Your task to perform on an android device: change keyboard looks Image 0: 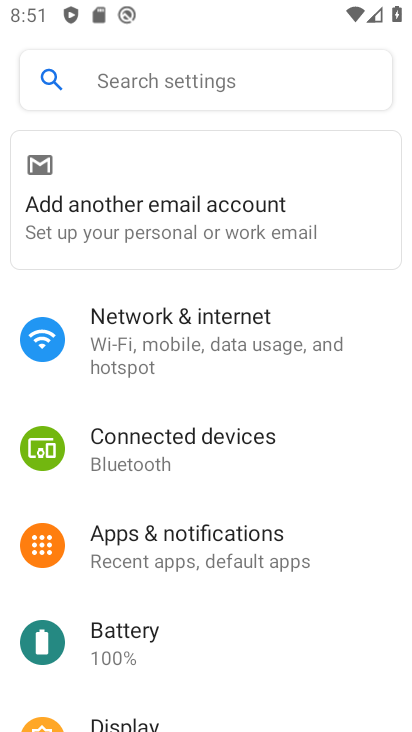
Step 0: drag from (160, 299) to (149, 261)
Your task to perform on an android device: change keyboard looks Image 1: 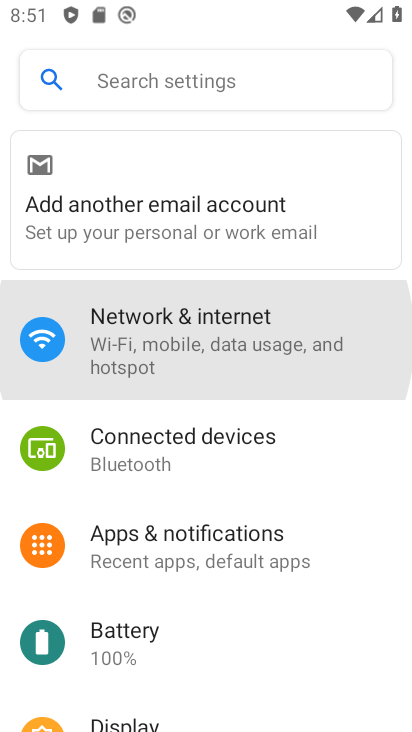
Step 1: drag from (198, 446) to (192, 319)
Your task to perform on an android device: change keyboard looks Image 2: 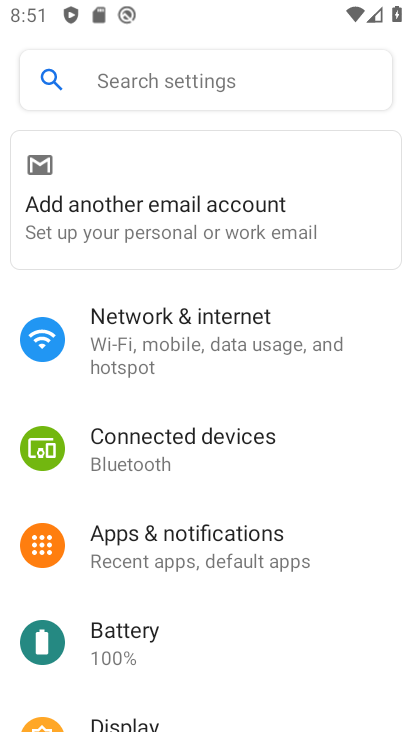
Step 2: click (163, 374)
Your task to perform on an android device: change keyboard looks Image 3: 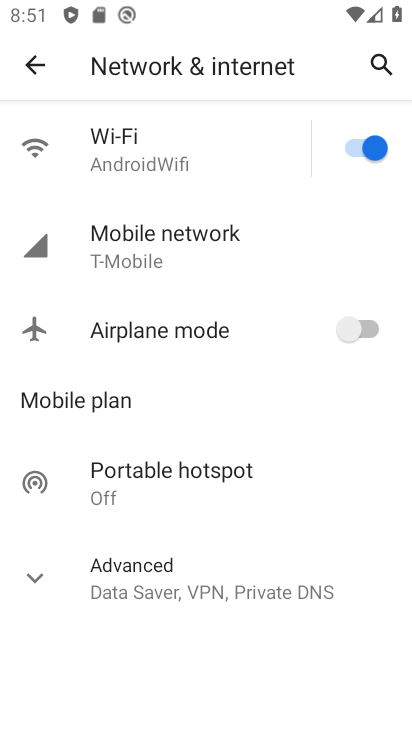
Step 3: click (30, 68)
Your task to perform on an android device: change keyboard looks Image 4: 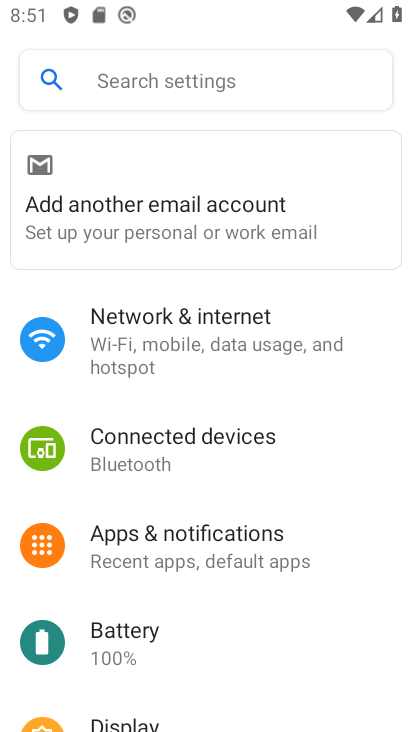
Step 4: drag from (183, 445) to (171, 273)
Your task to perform on an android device: change keyboard looks Image 5: 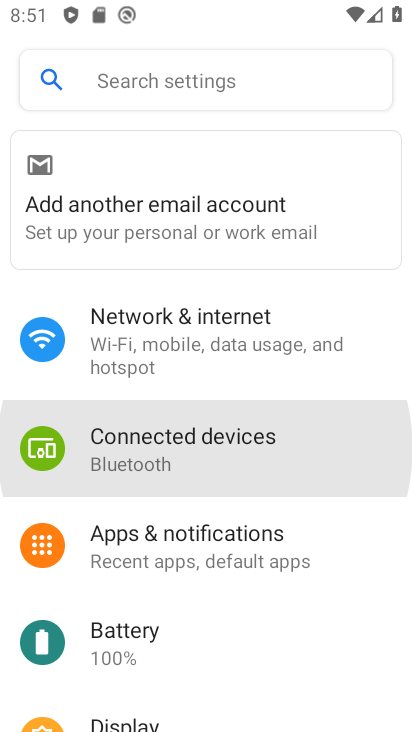
Step 5: drag from (270, 529) to (240, 239)
Your task to perform on an android device: change keyboard looks Image 6: 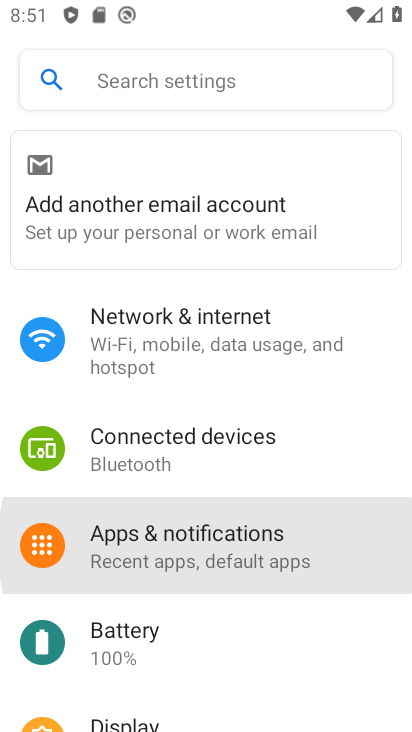
Step 6: drag from (284, 615) to (220, 301)
Your task to perform on an android device: change keyboard looks Image 7: 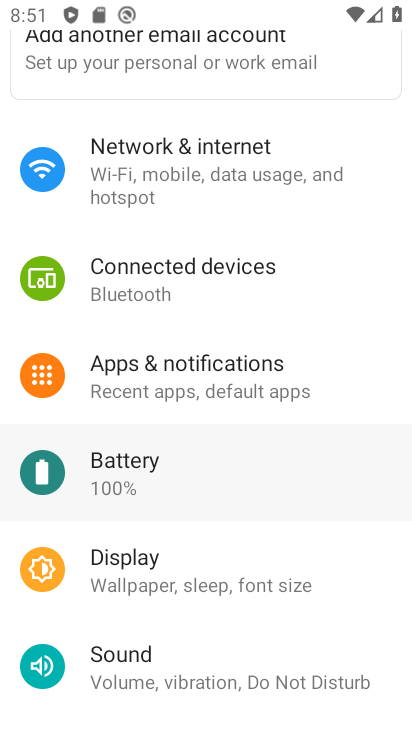
Step 7: drag from (241, 538) to (211, 229)
Your task to perform on an android device: change keyboard looks Image 8: 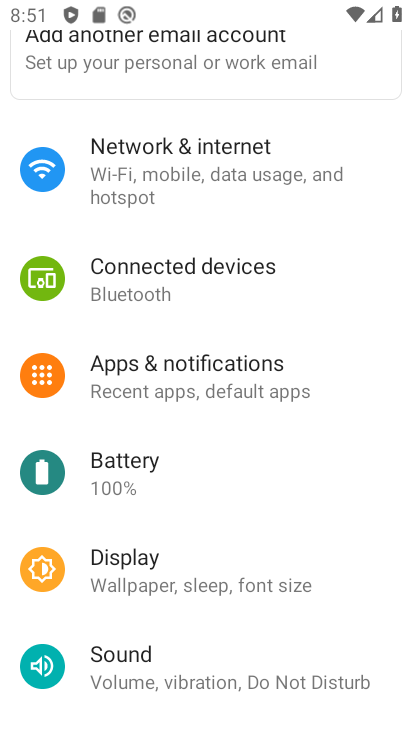
Step 8: drag from (251, 541) to (234, 237)
Your task to perform on an android device: change keyboard looks Image 9: 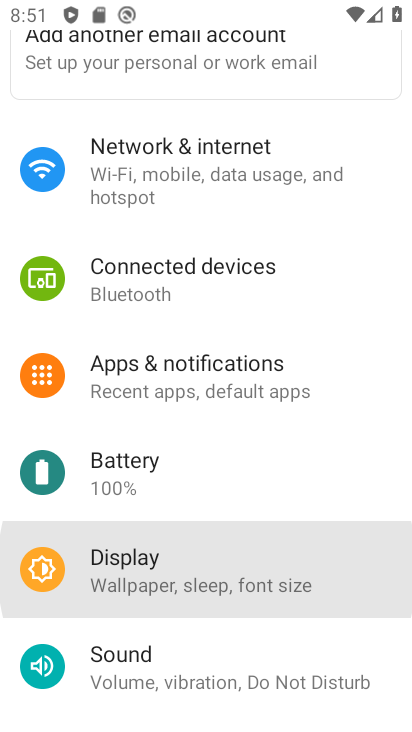
Step 9: drag from (174, 527) to (169, 138)
Your task to perform on an android device: change keyboard looks Image 10: 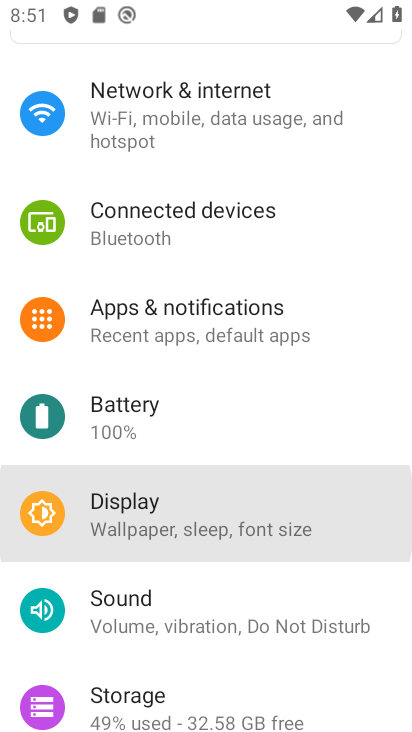
Step 10: drag from (219, 469) to (172, 269)
Your task to perform on an android device: change keyboard looks Image 11: 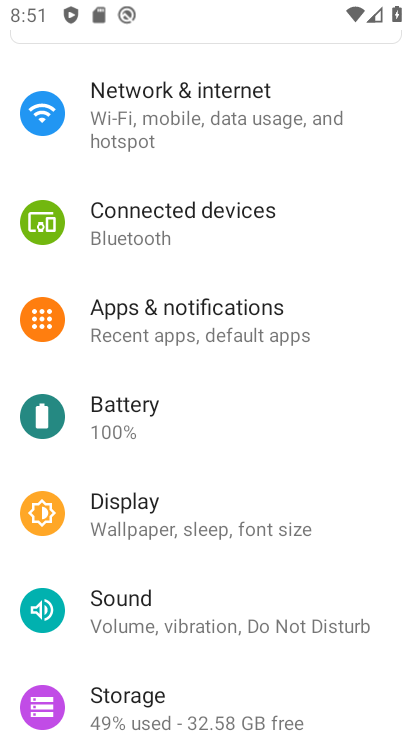
Step 11: drag from (229, 563) to (255, 128)
Your task to perform on an android device: change keyboard looks Image 12: 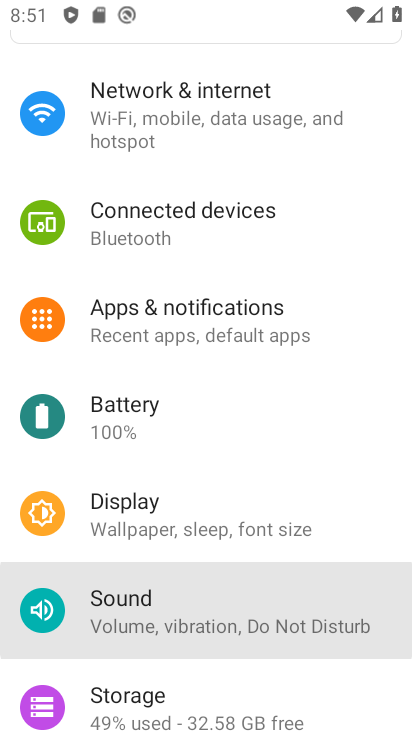
Step 12: drag from (283, 545) to (268, 164)
Your task to perform on an android device: change keyboard looks Image 13: 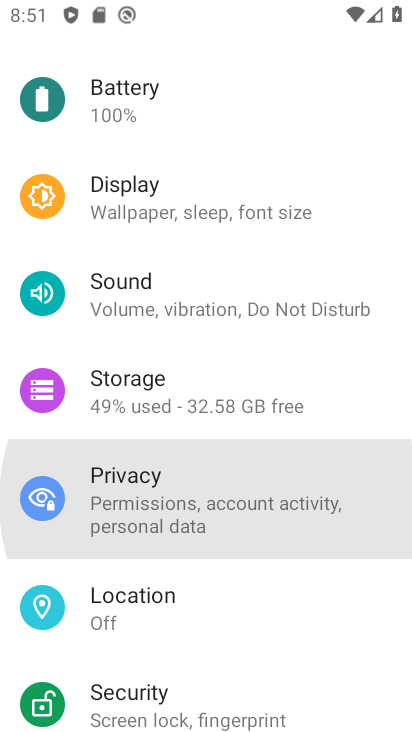
Step 13: drag from (266, 605) to (233, 156)
Your task to perform on an android device: change keyboard looks Image 14: 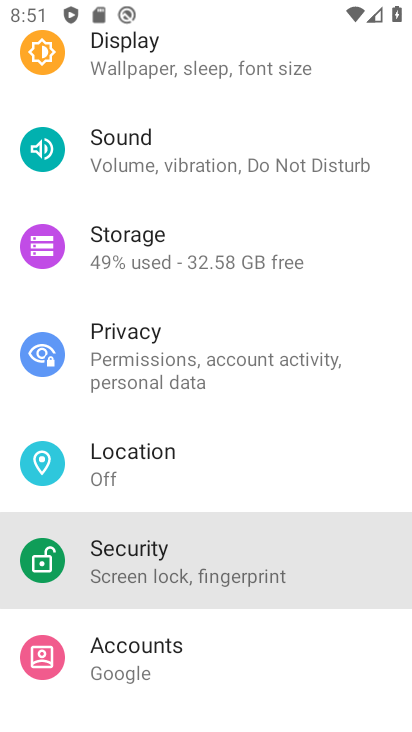
Step 14: drag from (286, 510) to (230, 272)
Your task to perform on an android device: change keyboard looks Image 15: 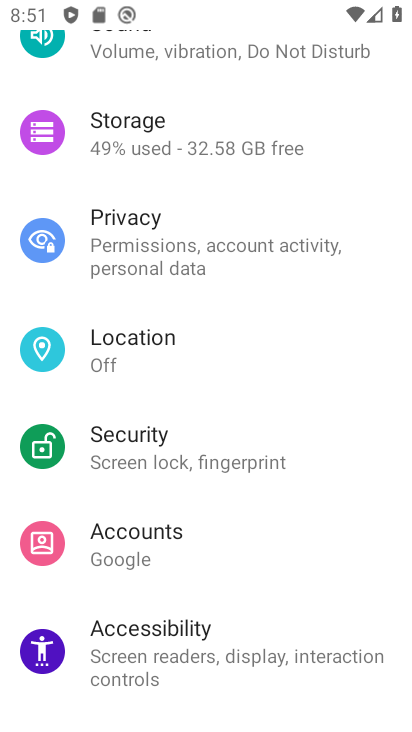
Step 15: drag from (242, 608) to (182, 279)
Your task to perform on an android device: change keyboard looks Image 16: 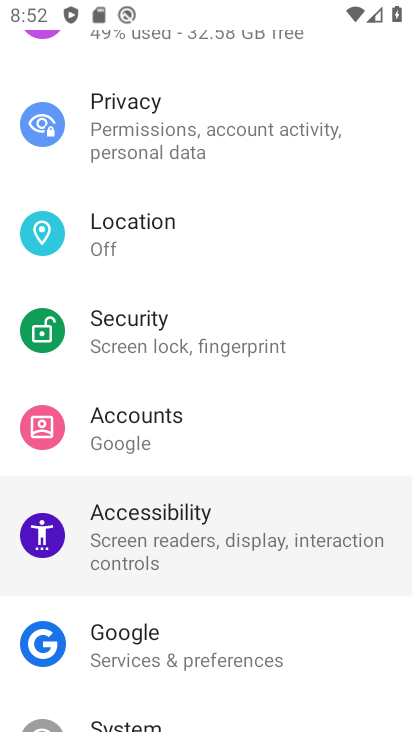
Step 16: drag from (223, 356) to (200, 189)
Your task to perform on an android device: change keyboard looks Image 17: 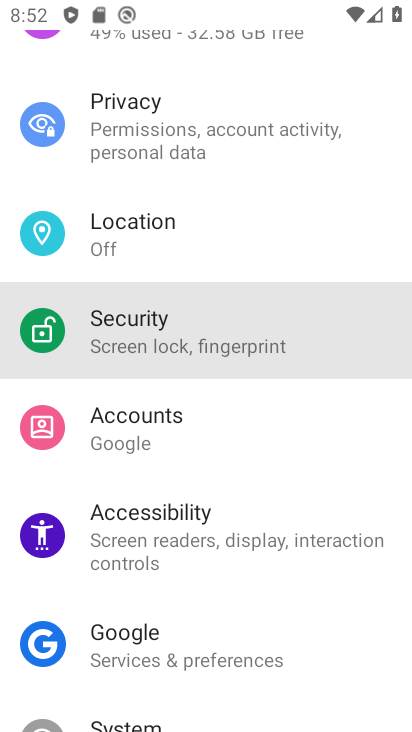
Step 17: drag from (293, 562) to (224, 320)
Your task to perform on an android device: change keyboard looks Image 18: 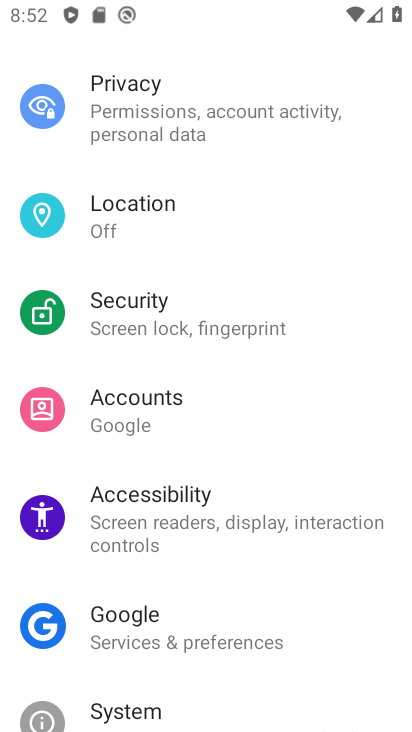
Step 18: drag from (160, 626) to (178, 335)
Your task to perform on an android device: change keyboard looks Image 19: 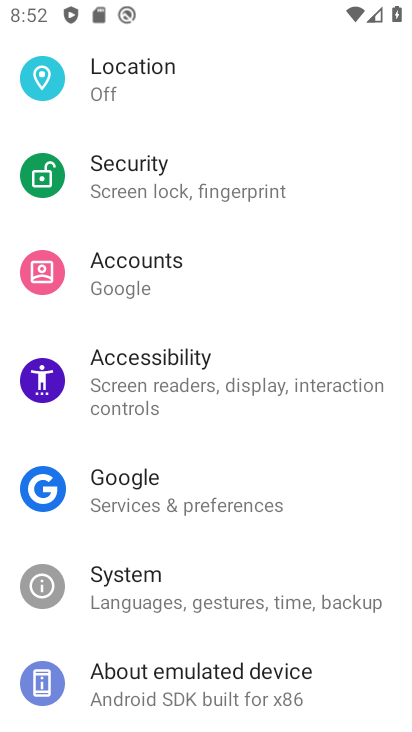
Step 19: click (141, 593)
Your task to perform on an android device: change keyboard looks Image 20: 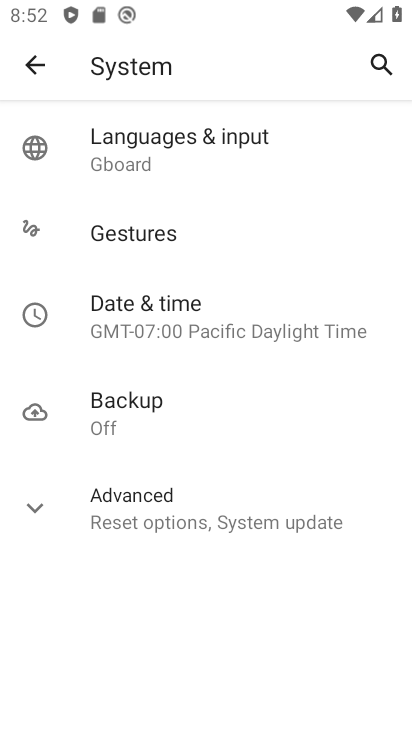
Step 20: click (113, 158)
Your task to perform on an android device: change keyboard looks Image 21: 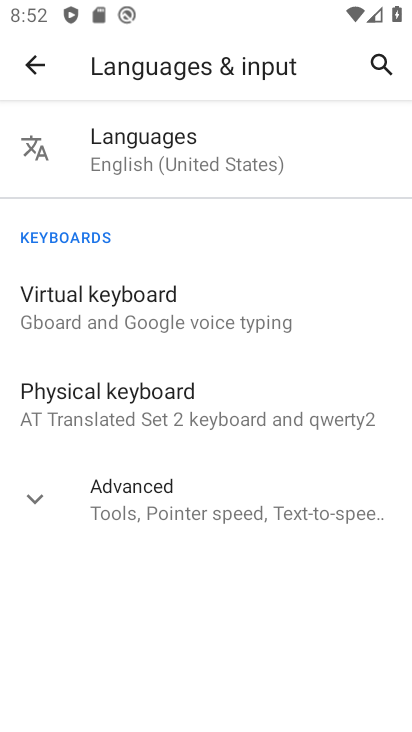
Step 21: click (103, 299)
Your task to perform on an android device: change keyboard looks Image 22: 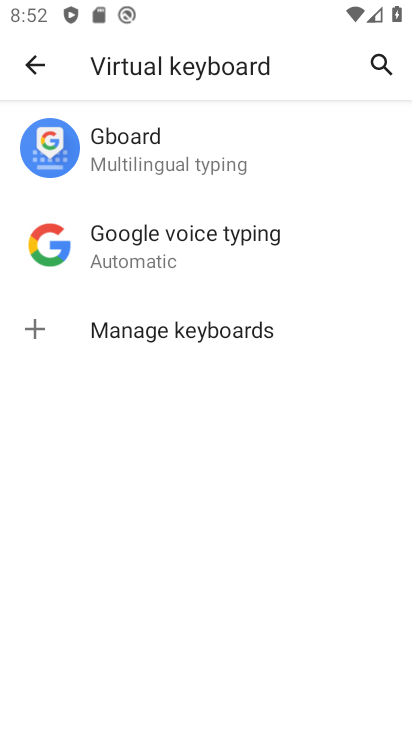
Step 22: click (118, 148)
Your task to perform on an android device: change keyboard looks Image 23: 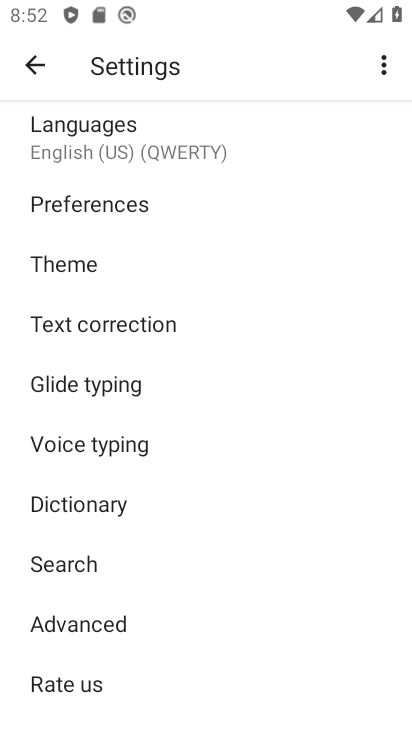
Step 23: click (58, 265)
Your task to perform on an android device: change keyboard looks Image 24: 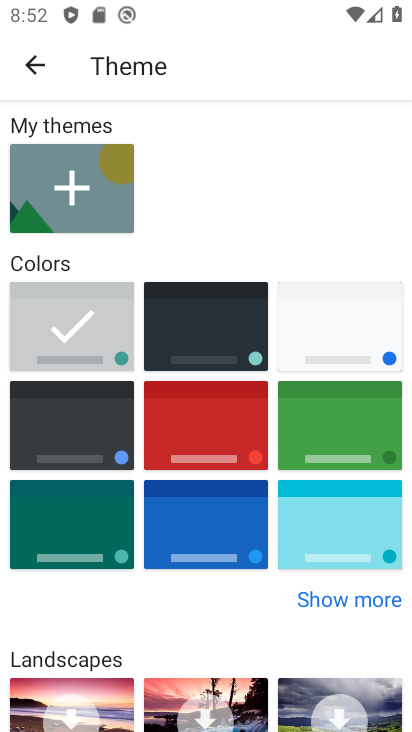
Step 24: click (71, 332)
Your task to perform on an android device: change keyboard looks Image 25: 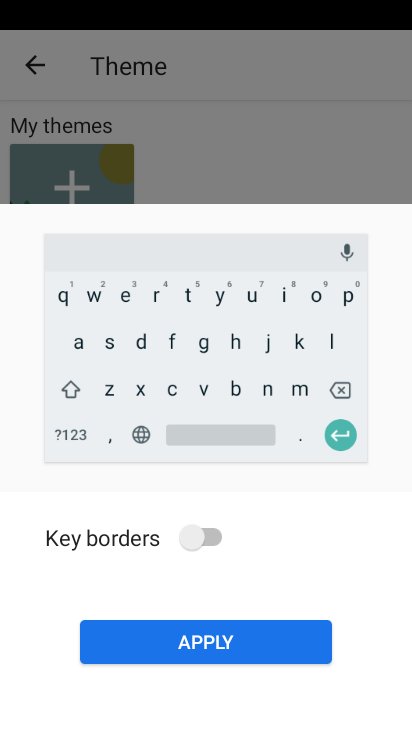
Step 25: click (194, 648)
Your task to perform on an android device: change keyboard looks Image 26: 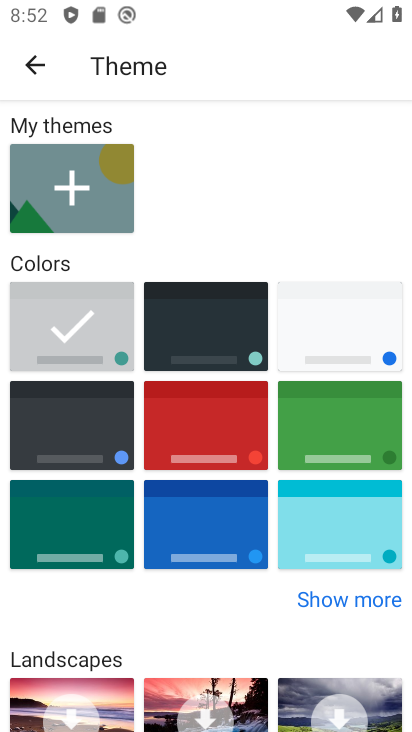
Step 26: click (73, 323)
Your task to perform on an android device: change keyboard looks Image 27: 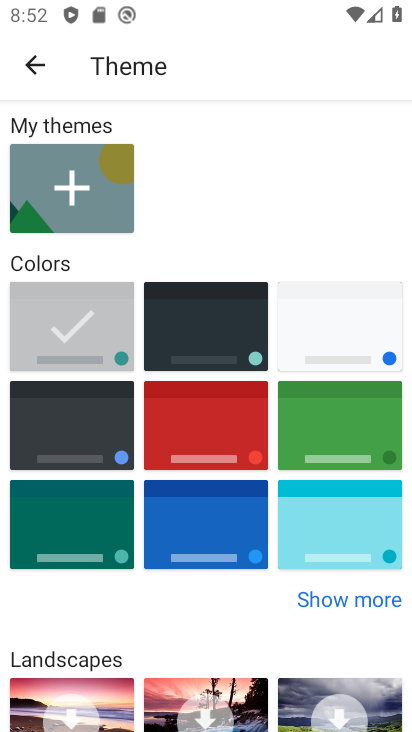
Step 27: click (75, 319)
Your task to perform on an android device: change keyboard looks Image 28: 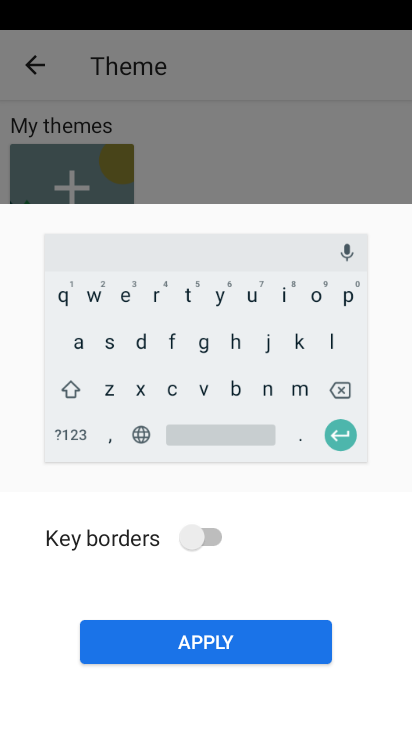
Step 28: click (75, 318)
Your task to perform on an android device: change keyboard looks Image 29: 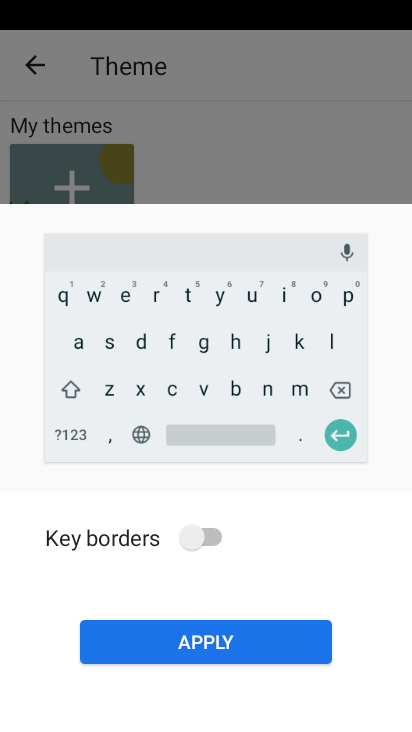
Step 29: click (216, 633)
Your task to perform on an android device: change keyboard looks Image 30: 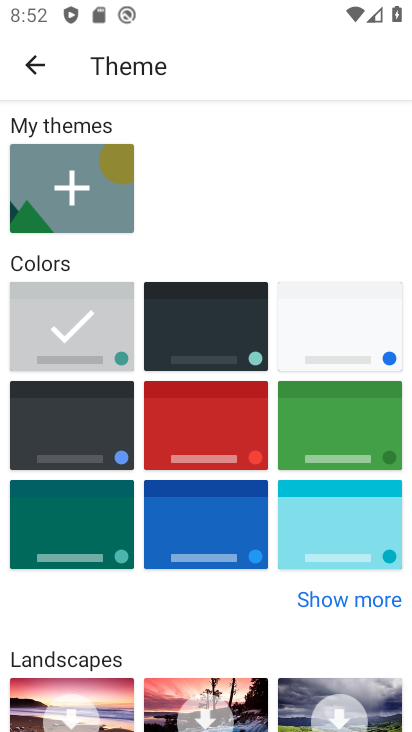
Step 30: click (213, 635)
Your task to perform on an android device: change keyboard looks Image 31: 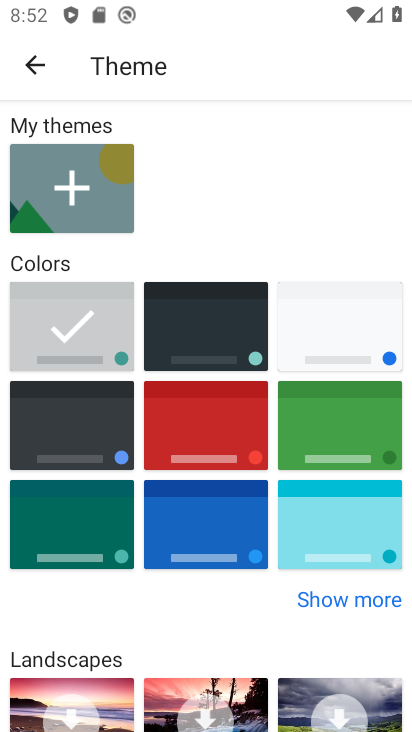
Step 31: task complete